Your task to perform on an android device: Show me recent news Image 0: 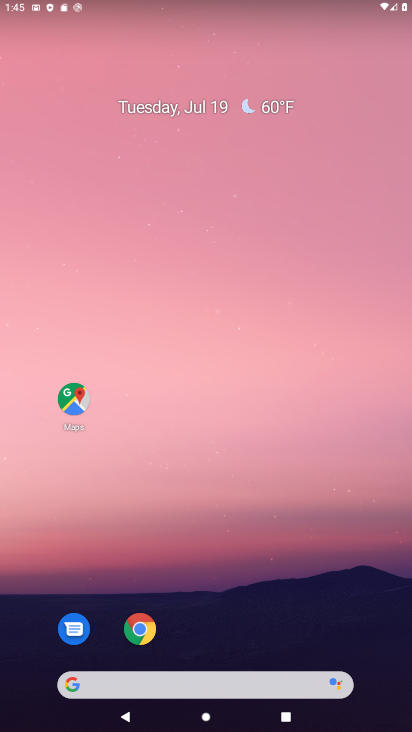
Step 0: drag from (3, 312) to (396, 320)
Your task to perform on an android device: Show me recent news Image 1: 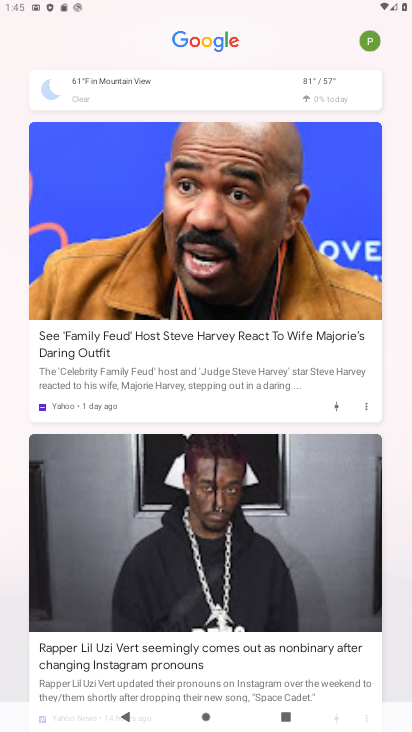
Step 1: task complete